Your task to perform on an android device: toggle notification dots Image 0: 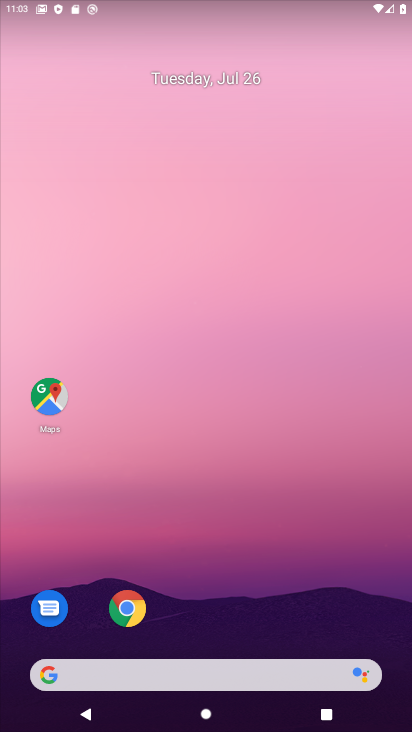
Step 0: drag from (211, 577) to (288, 107)
Your task to perform on an android device: toggle notification dots Image 1: 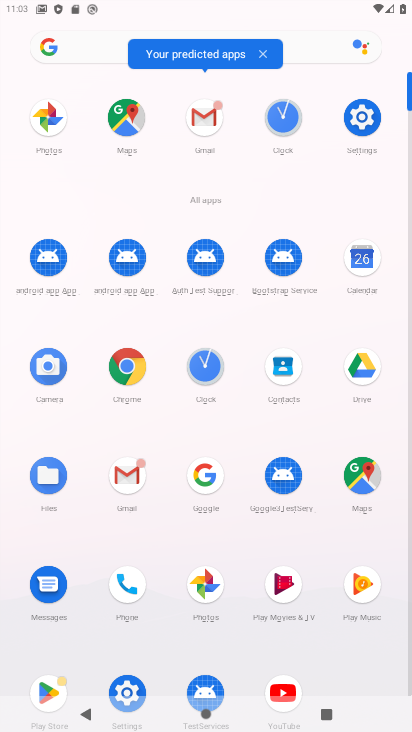
Step 1: click (131, 679)
Your task to perform on an android device: toggle notification dots Image 2: 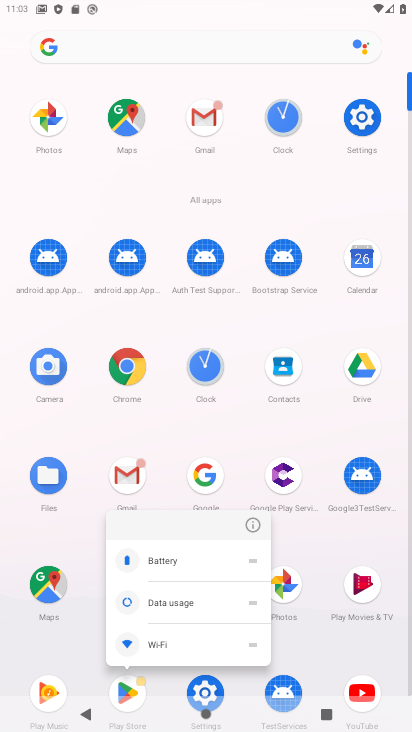
Step 2: click (250, 521)
Your task to perform on an android device: toggle notification dots Image 3: 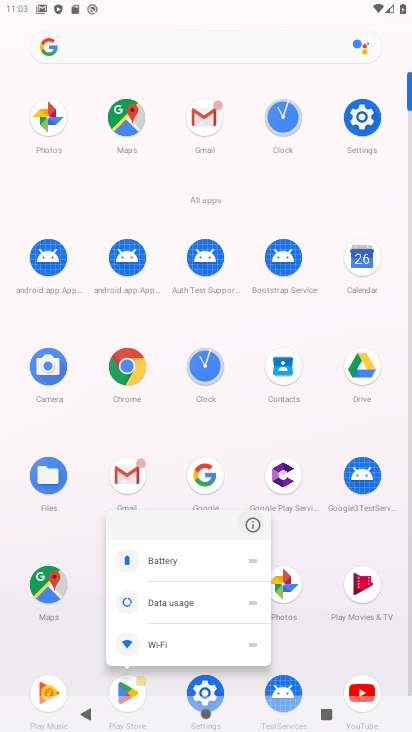
Step 3: click (250, 519)
Your task to perform on an android device: toggle notification dots Image 4: 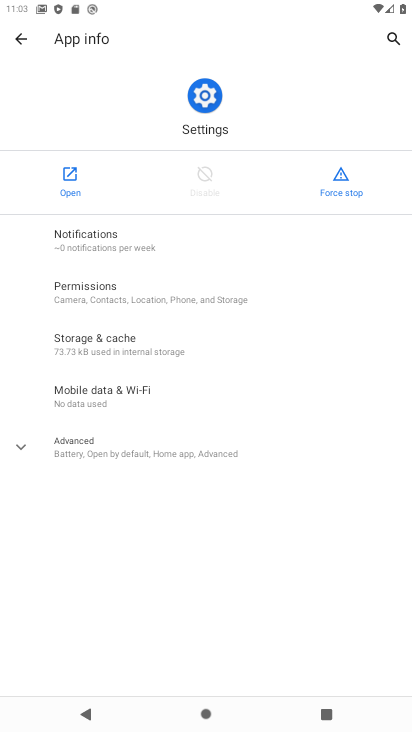
Step 4: click (62, 193)
Your task to perform on an android device: toggle notification dots Image 5: 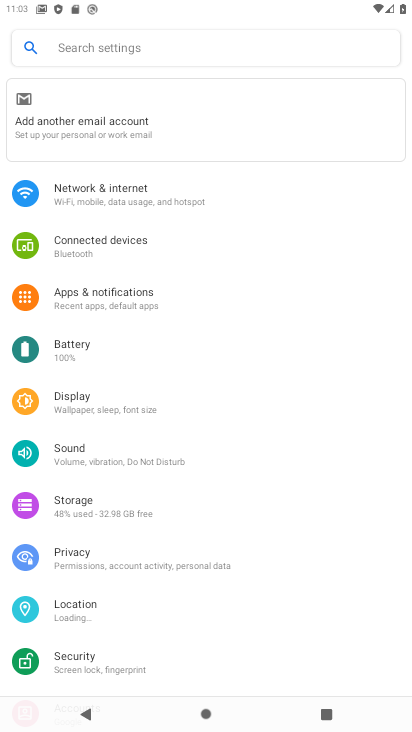
Step 5: click (138, 308)
Your task to perform on an android device: toggle notification dots Image 6: 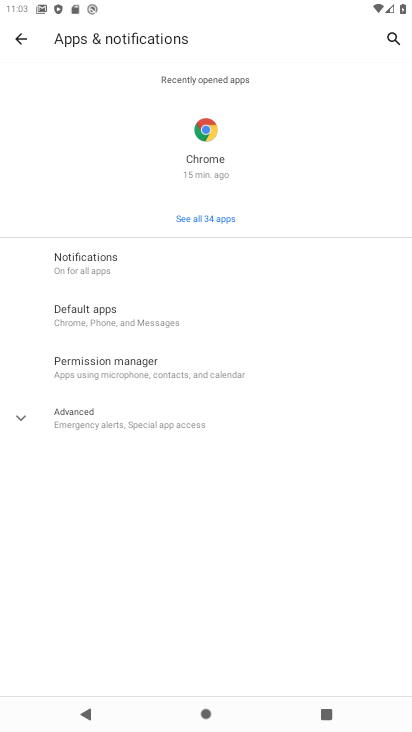
Step 6: click (145, 268)
Your task to perform on an android device: toggle notification dots Image 7: 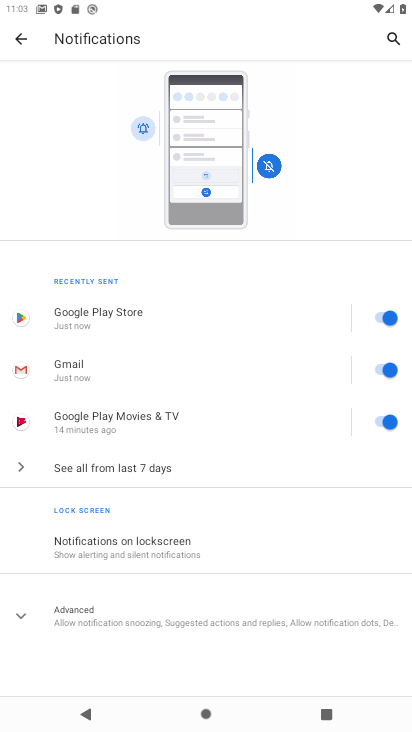
Step 7: click (71, 623)
Your task to perform on an android device: toggle notification dots Image 8: 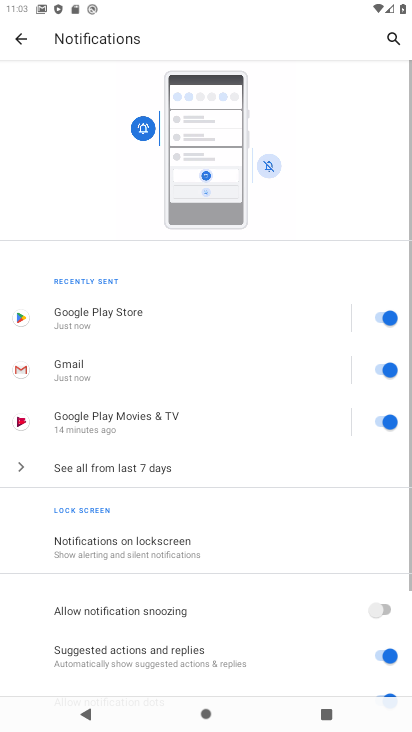
Step 8: drag from (148, 597) to (297, 192)
Your task to perform on an android device: toggle notification dots Image 9: 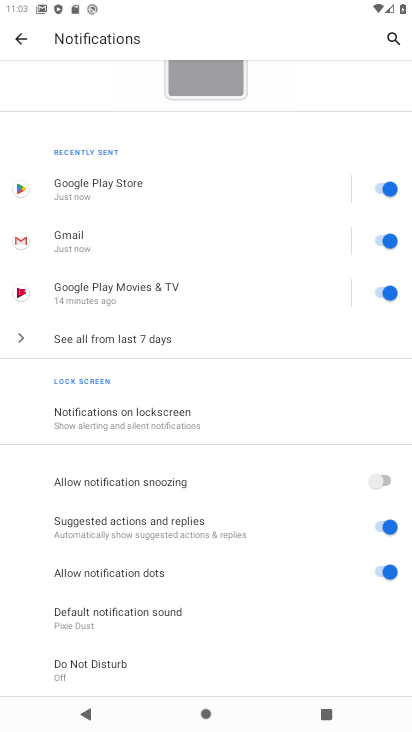
Step 9: drag from (213, 596) to (302, 269)
Your task to perform on an android device: toggle notification dots Image 10: 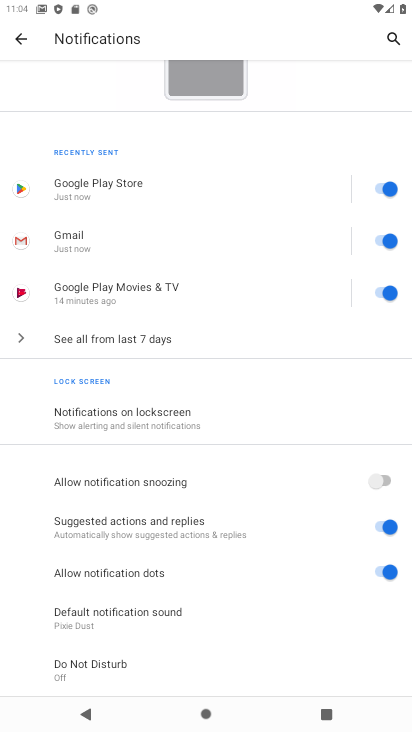
Step 10: click (387, 571)
Your task to perform on an android device: toggle notification dots Image 11: 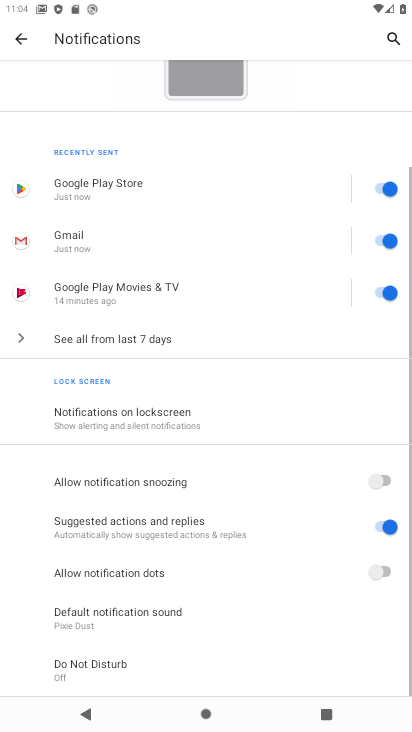
Step 11: task complete